Your task to perform on an android device: Go to wifi settings Image 0: 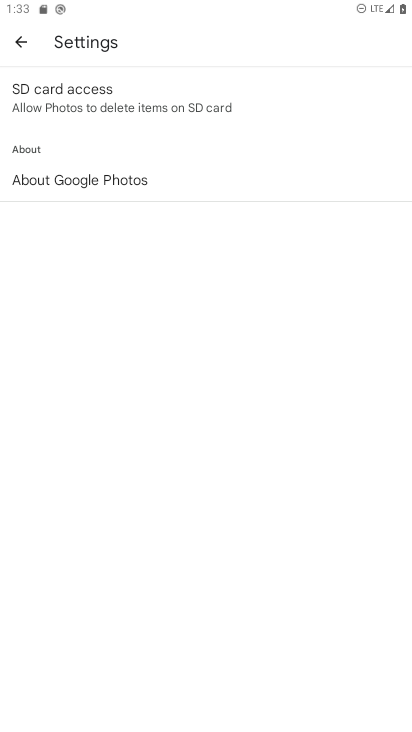
Step 0: press home button
Your task to perform on an android device: Go to wifi settings Image 1: 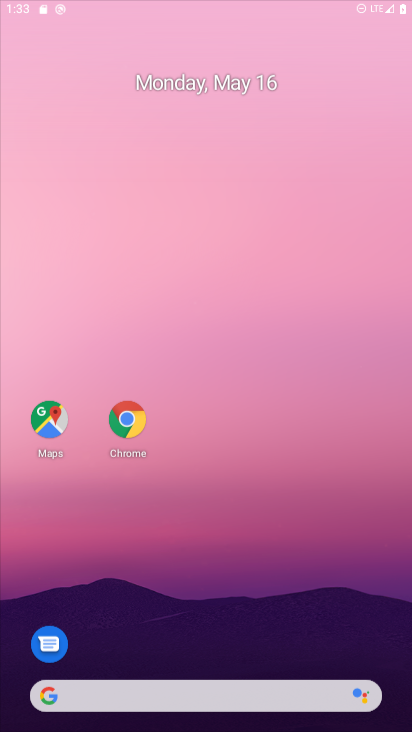
Step 1: drag from (118, 468) to (243, 140)
Your task to perform on an android device: Go to wifi settings Image 2: 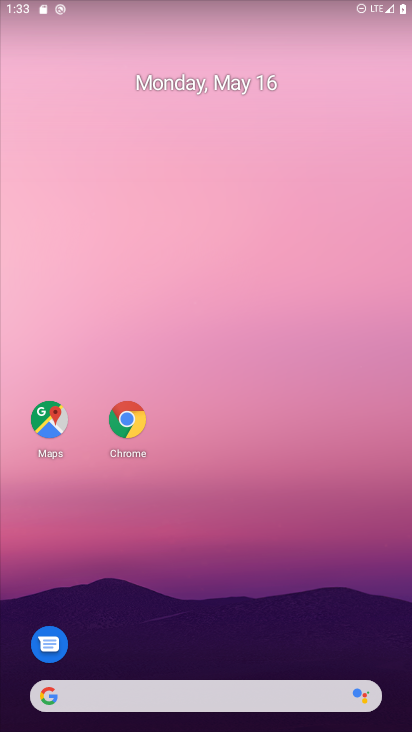
Step 2: drag from (232, 534) to (227, 10)
Your task to perform on an android device: Go to wifi settings Image 3: 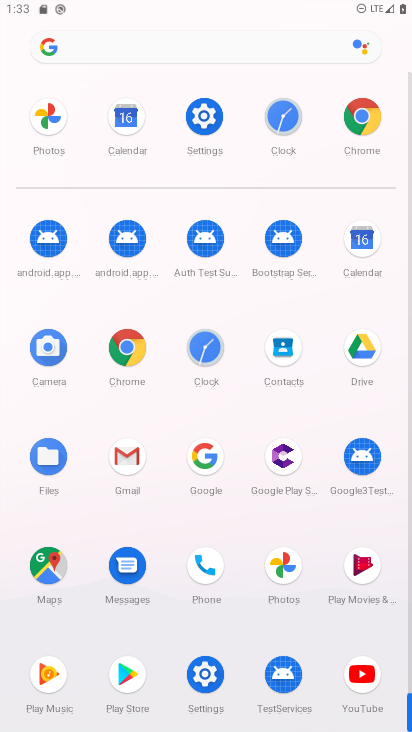
Step 3: click (211, 109)
Your task to perform on an android device: Go to wifi settings Image 4: 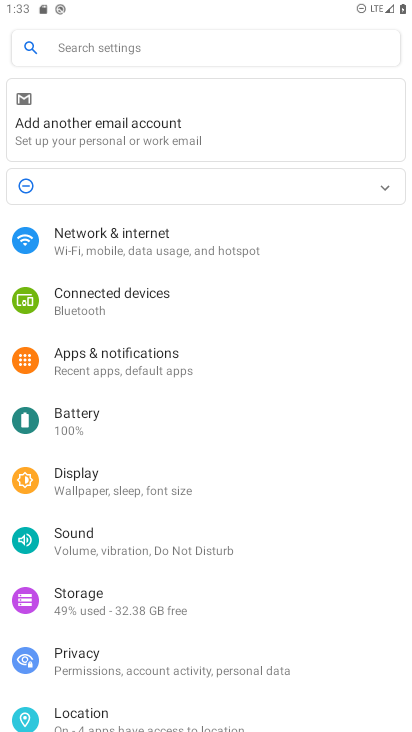
Step 4: drag from (231, 553) to (302, 62)
Your task to perform on an android device: Go to wifi settings Image 5: 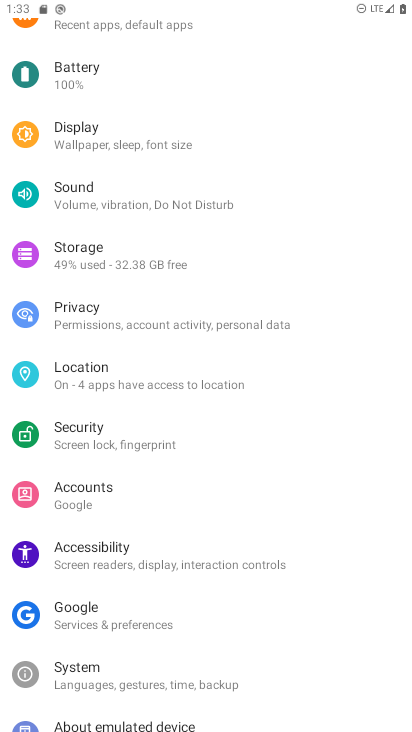
Step 5: drag from (151, 96) to (216, 730)
Your task to perform on an android device: Go to wifi settings Image 6: 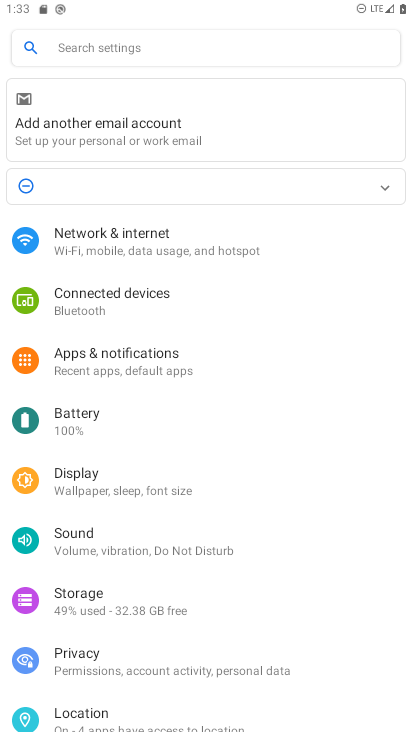
Step 6: click (107, 249)
Your task to perform on an android device: Go to wifi settings Image 7: 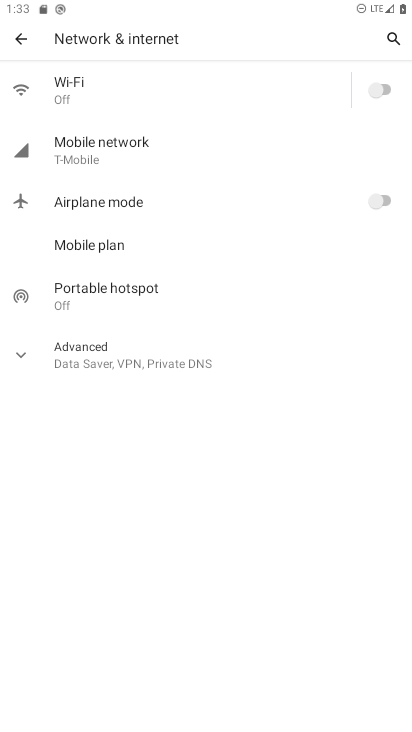
Step 7: click (156, 98)
Your task to perform on an android device: Go to wifi settings Image 8: 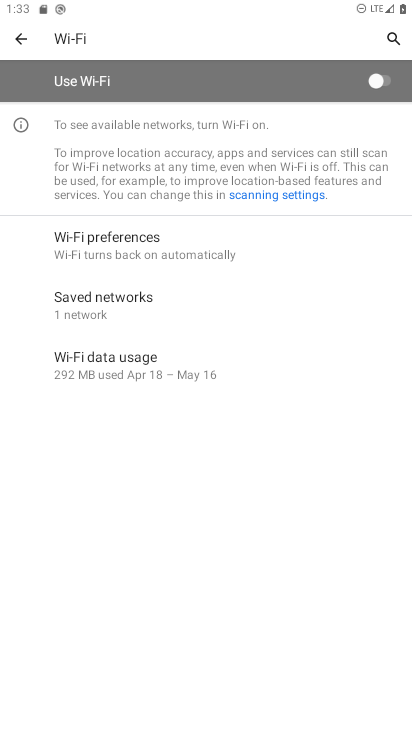
Step 8: task complete